Your task to perform on an android device: turn on priority inbox in the gmail app Image 0: 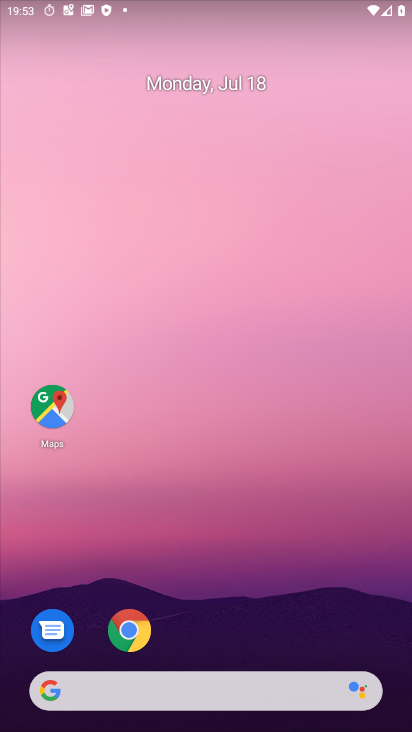
Step 0: drag from (291, 590) to (310, 69)
Your task to perform on an android device: turn on priority inbox in the gmail app Image 1: 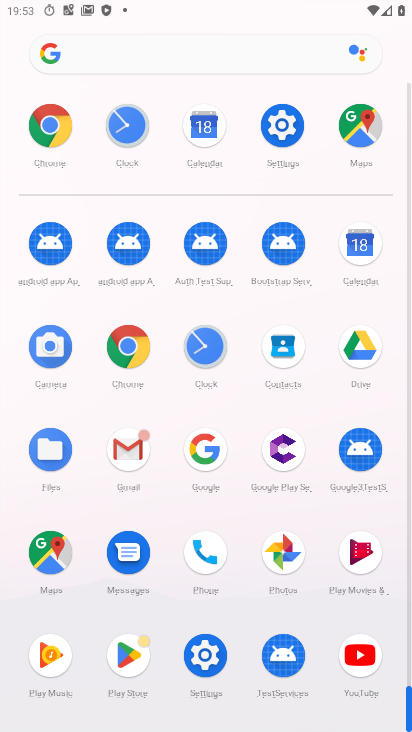
Step 1: click (149, 451)
Your task to perform on an android device: turn on priority inbox in the gmail app Image 2: 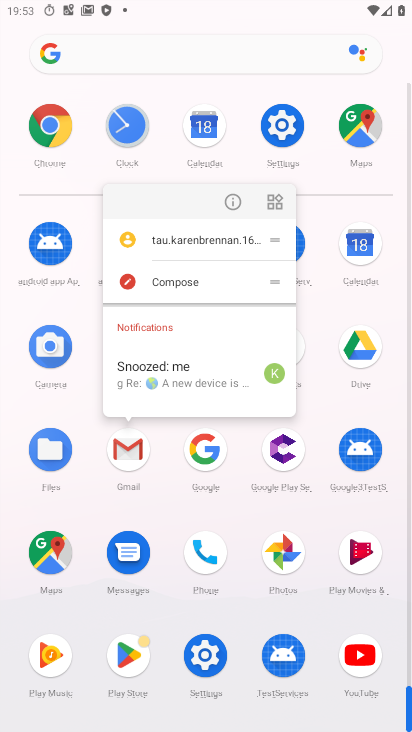
Step 2: click (137, 435)
Your task to perform on an android device: turn on priority inbox in the gmail app Image 3: 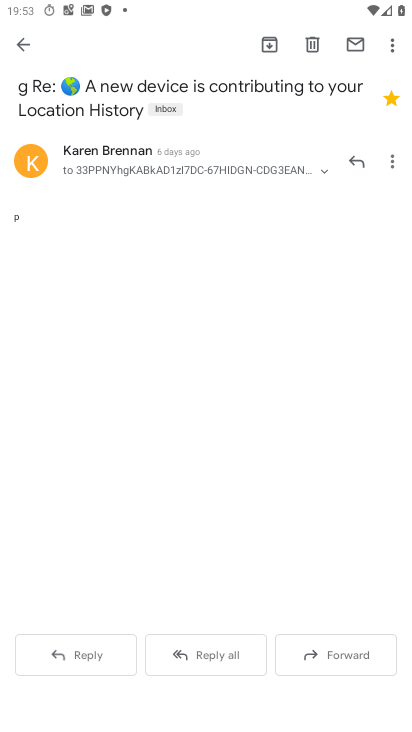
Step 3: click (26, 47)
Your task to perform on an android device: turn on priority inbox in the gmail app Image 4: 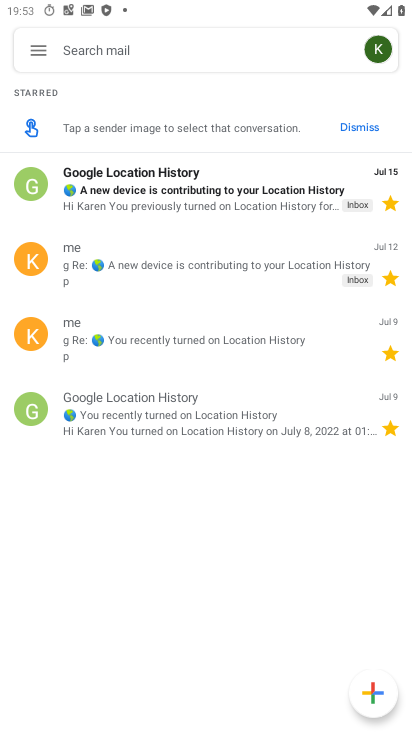
Step 4: click (35, 47)
Your task to perform on an android device: turn on priority inbox in the gmail app Image 5: 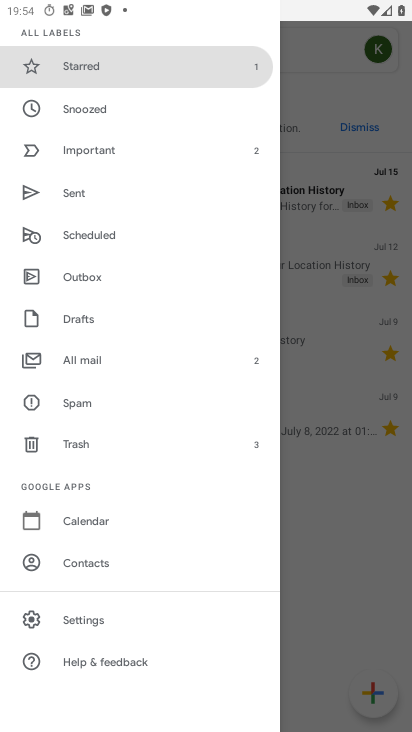
Step 5: click (80, 611)
Your task to perform on an android device: turn on priority inbox in the gmail app Image 6: 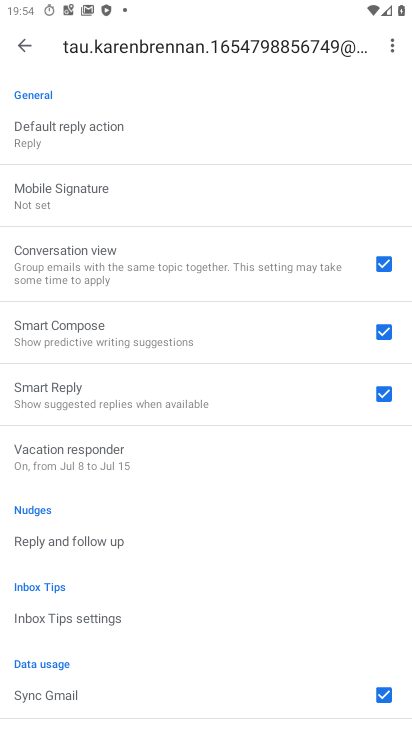
Step 6: click (75, 142)
Your task to perform on an android device: turn on priority inbox in the gmail app Image 7: 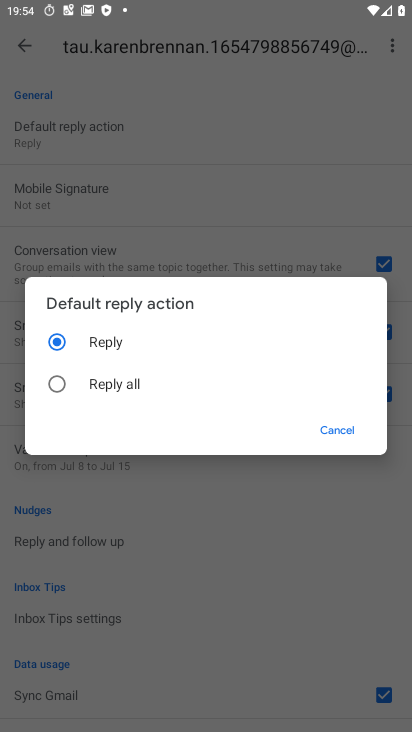
Step 7: click (330, 430)
Your task to perform on an android device: turn on priority inbox in the gmail app Image 8: 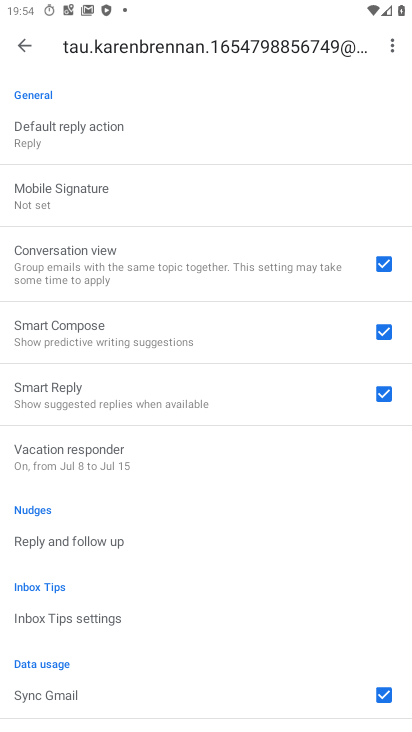
Step 8: drag from (167, 171) to (209, 623)
Your task to perform on an android device: turn on priority inbox in the gmail app Image 9: 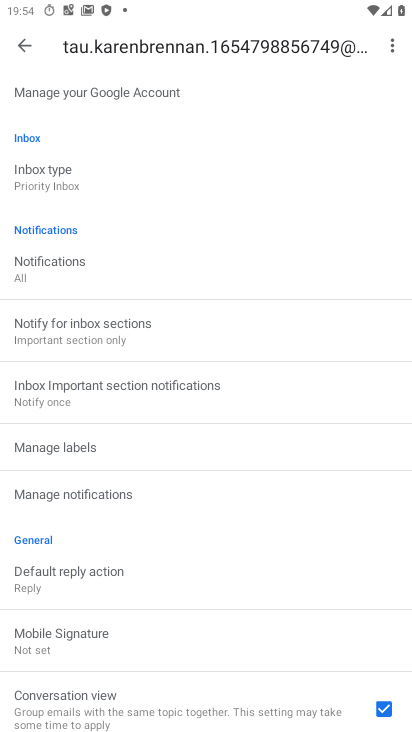
Step 9: drag from (164, 184) to (249, 574)
Your task to perform on an android device: turn on priority inbox in the gmail app Image 10: 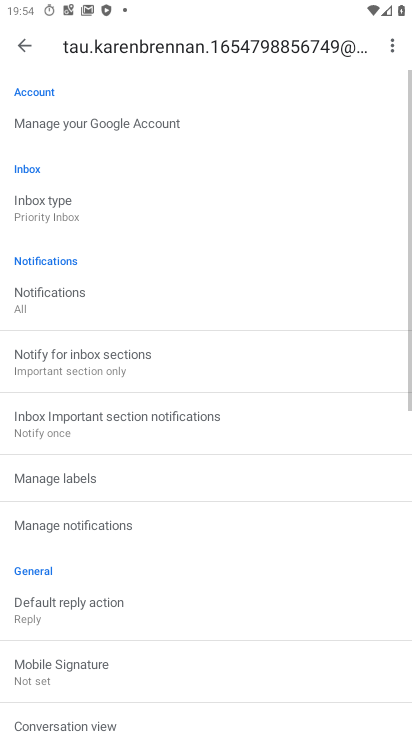
Step 10: click (39, 207)
Your task to perform on an android device: turn on priority inbox in the gmail app Image 11: 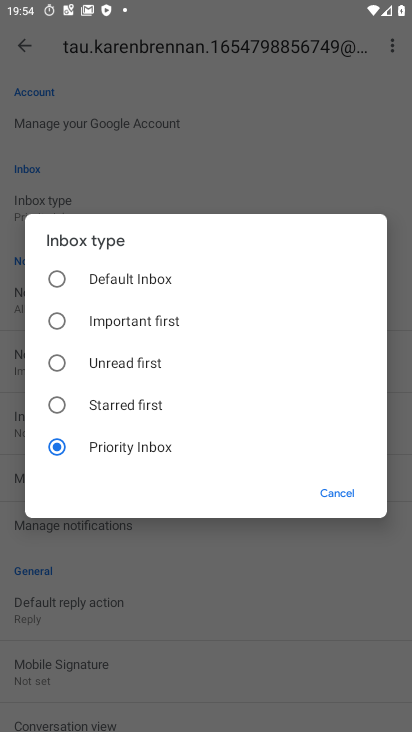
Step 11: task complete